Your task to perform on an android device: change text size in settings app Image 0: 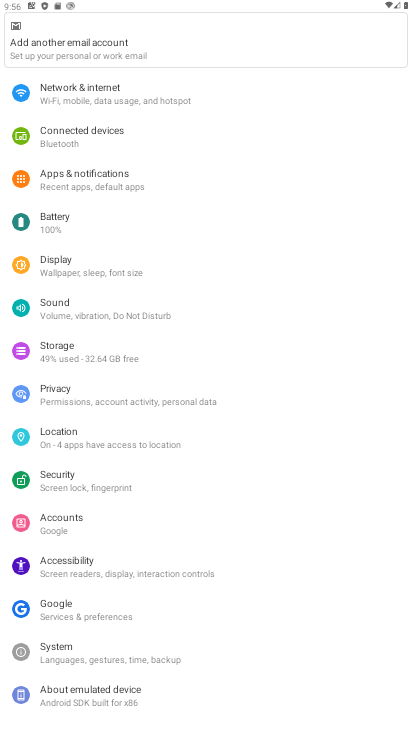
Step 0: click (74, 273)
Your task to perform on an android device: change text size in settings app Image 1: 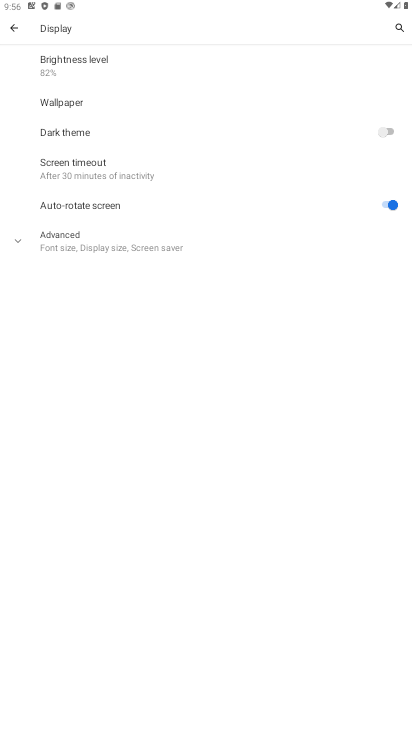
Step 1: click (96, 242)
Your task to perform on an android device: change text size in settings app Image 2: 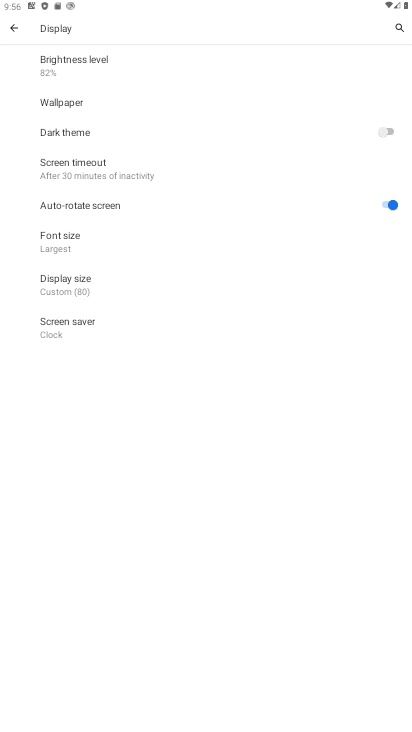
Step 2: click (56, 238)
Your task to perform on an android device: change text size in settings app Image 3: 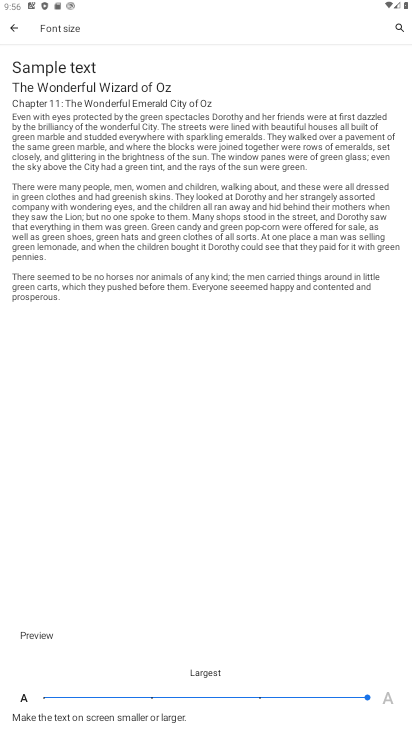
Step 3: click (271, 696)
Your task to perform on an android device: change text size in settings app Image 4: 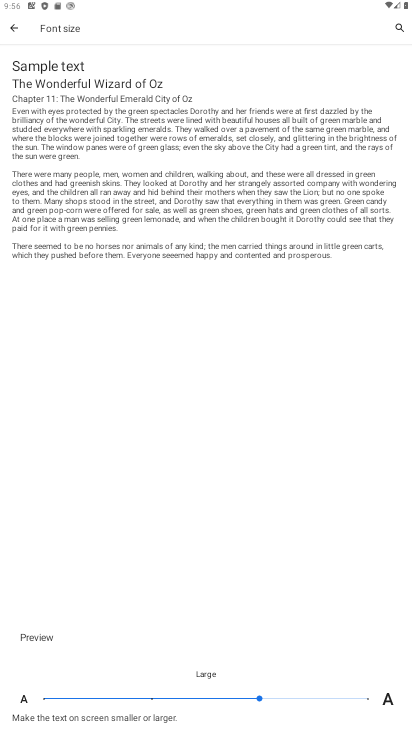
Step 4: task complete